Your task to perform on an android device: Open CNN.com Image 0: 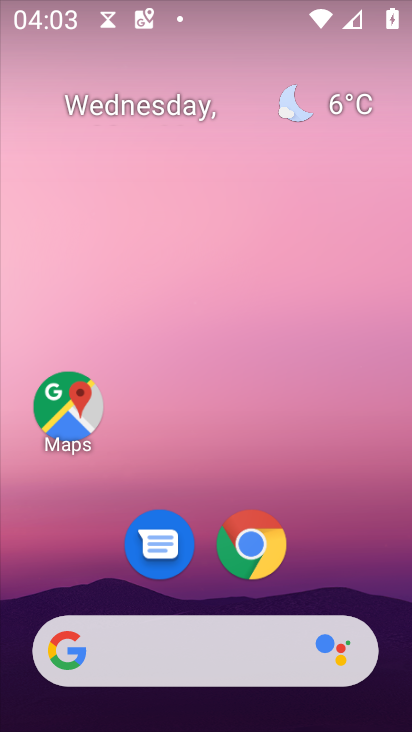
Step 0: click (252, 548)
Your task to perform on an android device: Open CNN.com Image 1: 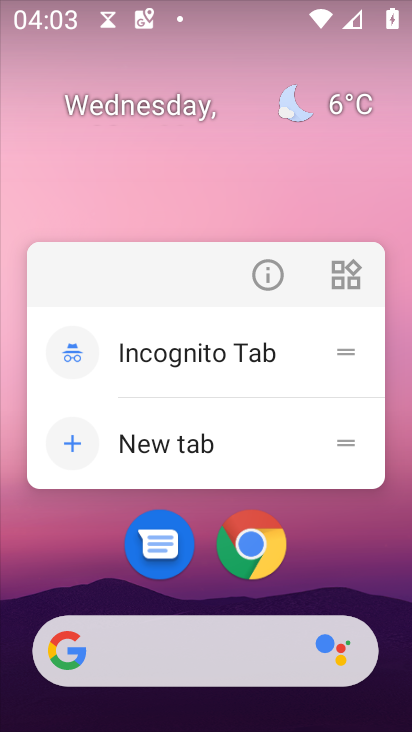
Step 1: click (252, 548)
Your task to perform on an android device: Open CNN.com Image 2: 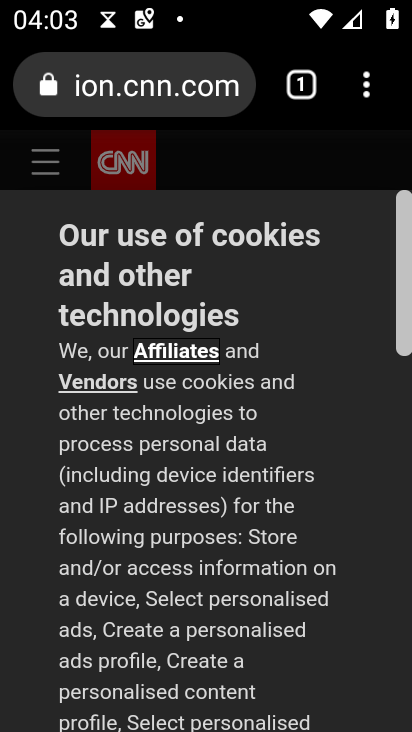
Step 2: task complete